Your task to perform on an android device: Is it going to rain this weekend? Image 0: 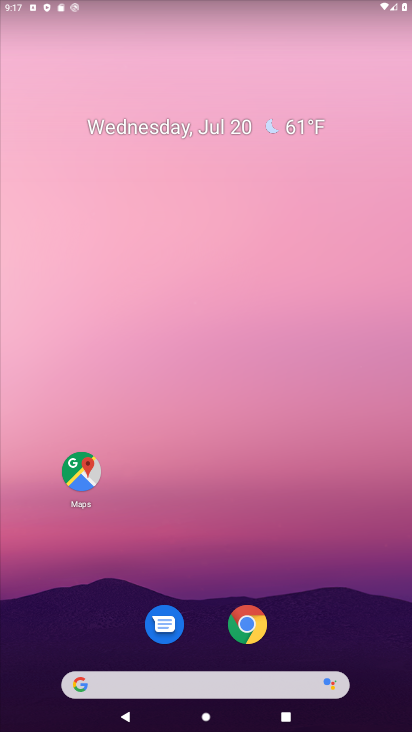
Step 0: drag from (196, 591) to (210, 140)
Your task to perform on an android device: Is it going to rain this weekend? Image 1: 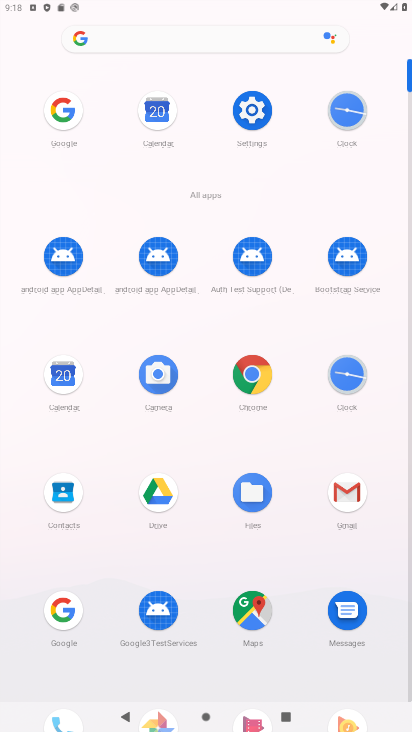
Step 1: click (75, 613)
Your task to perform on an android device: Is it going to rain this weekend? Image 2: 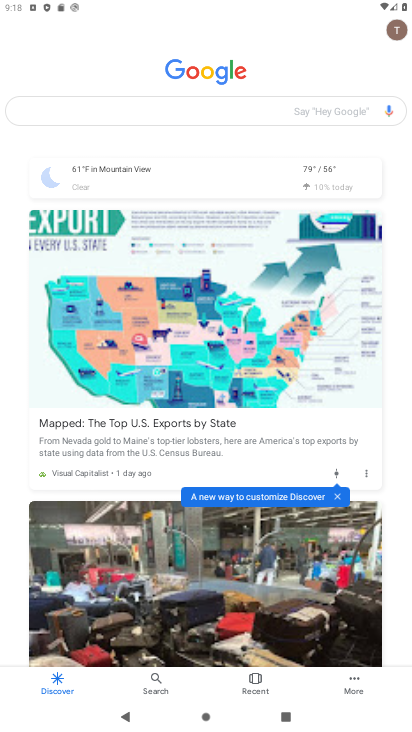
Step 2: click (133, 119)
Your task to perform on an android device: Is it going to rain this weekend? Image 3: 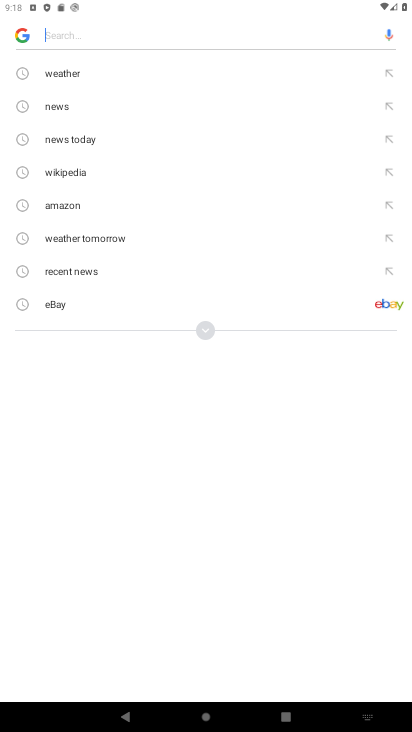
Step 3: click (82, 75)
Your task to perform on an android device: Is it going to rain this weekend? Image 4: 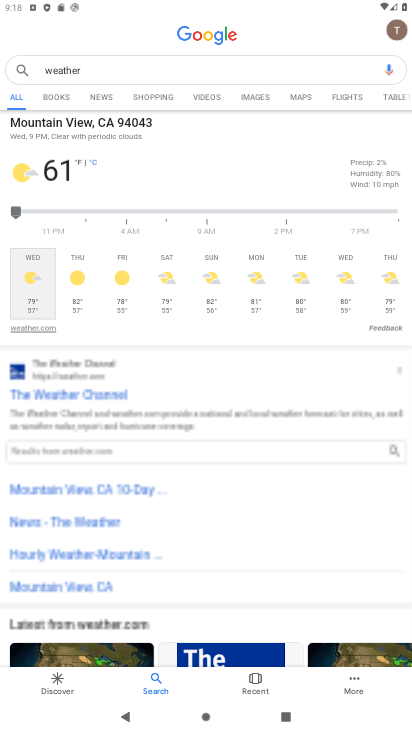
Step 4: task complete